Your task to perform on an android device: Go to Wikipedia Image 0: 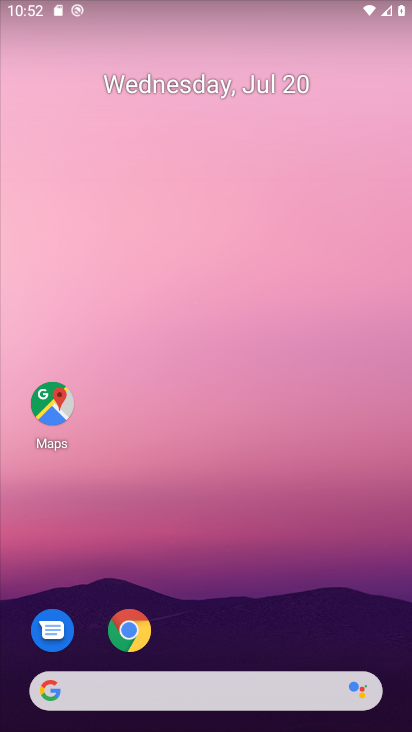
Step 0: drag from (237, 466) to (230, 182)
Your task to perform on an android device: Go to Wikipedia Image 1: 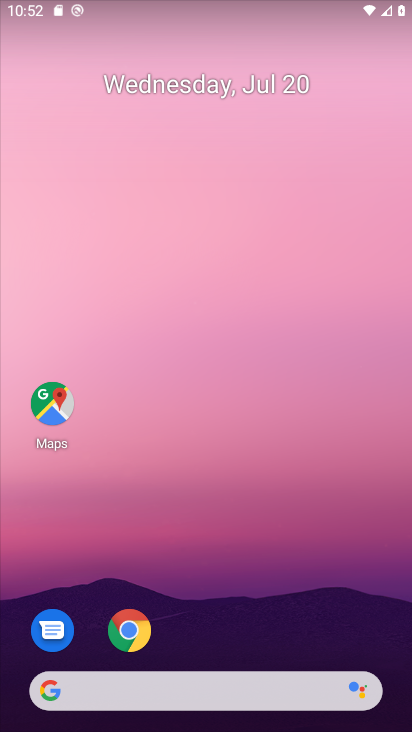
Step 1: drag from (195, 622) to (196, 35)
Your task to perform on an android device: Go to Wikipedia Image 2: 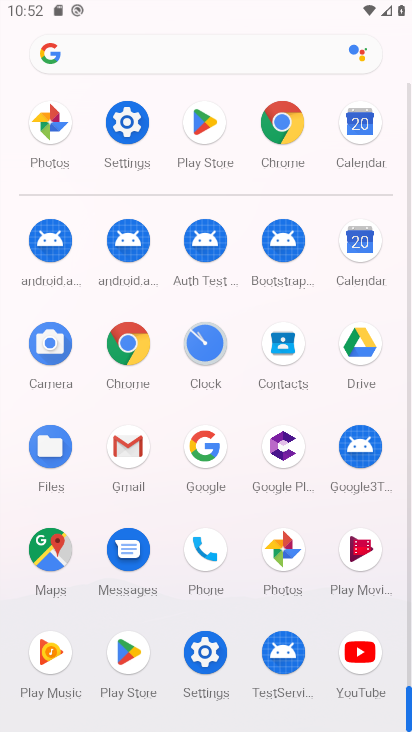
Step 2: click (279, 132)
Your task to perform on an android device: Go to Wikipedia Image 3: 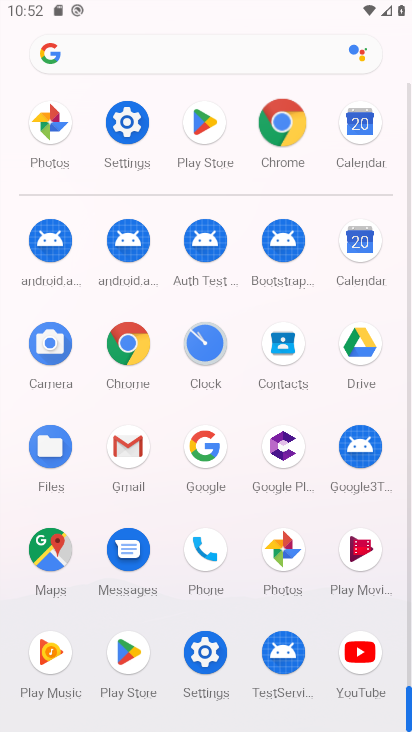
Step 3: click (280, 132)
Your task to perform on an android device: Go to Wikipedia Image 4: 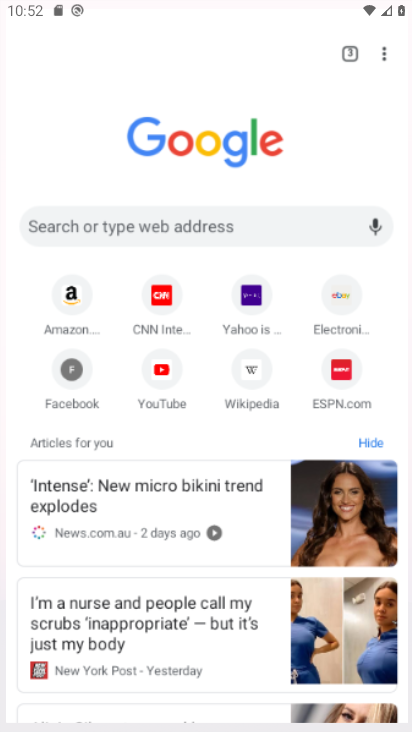
Step 4: click (281, 131)
Your task to perform on an android device: Go to Wikipedia Image 5: 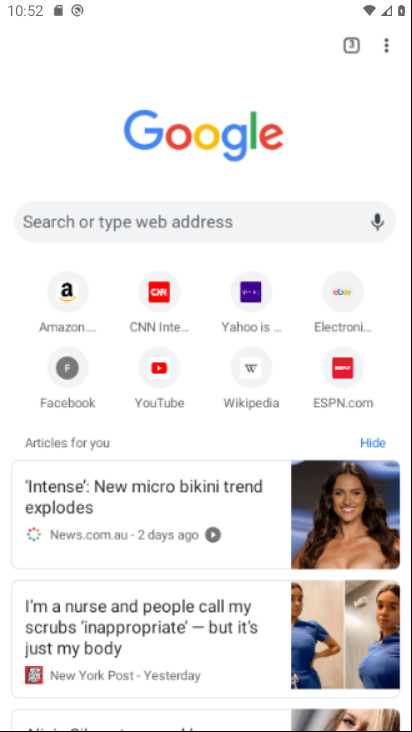
Step 5: click (282, 131)
Your task to perform on an android device: Go to Wikipedia Image 6: 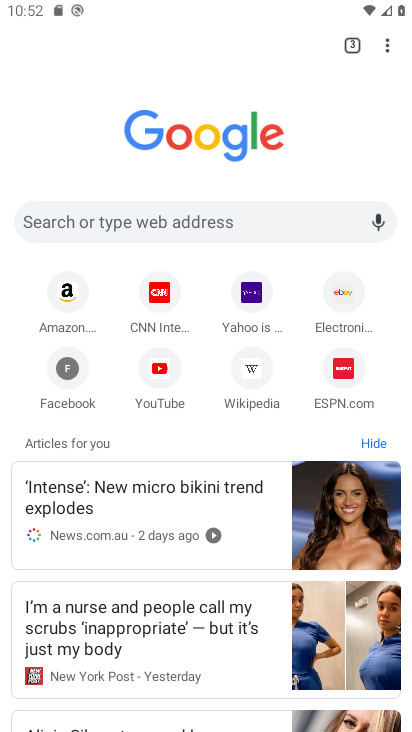
Step 6: click (254, 367)
Your task to perform on an android device: Go to Wikipedia Image 7: 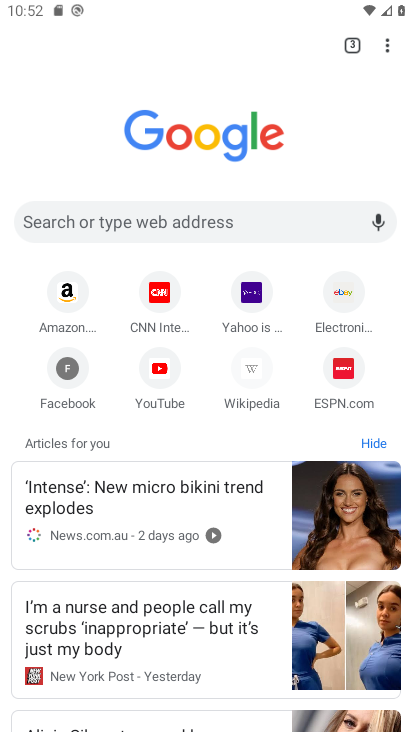
Step 7: click (254, 367)
Your task to perform on an android device: Go to Wikipedia Image 8: 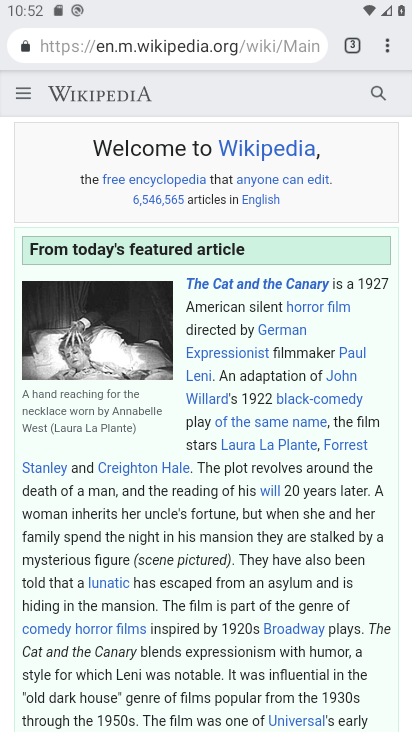
Step 8: task complete